Your task to perform on an android device: check android version Image 0: 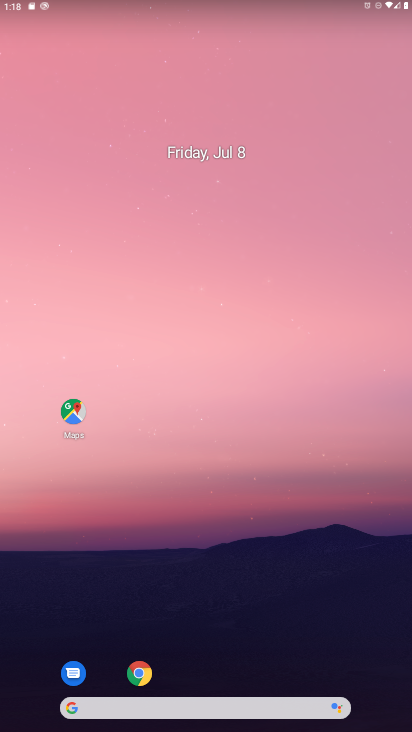
Step 0: drag from (376, 684) to (256, 188)
Your task to perform on an android device: check android version Image 1: 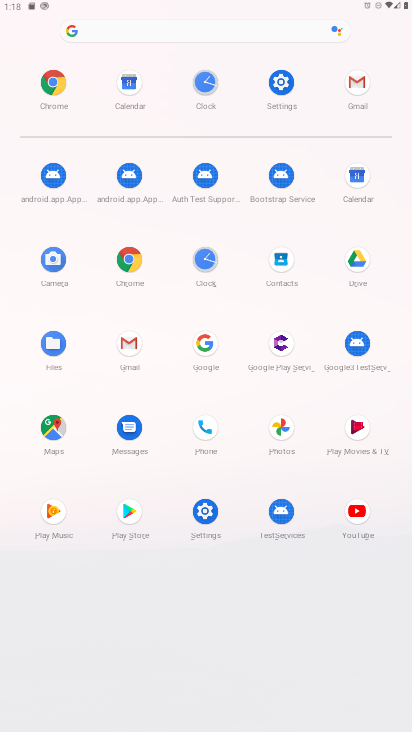
Step 1: click (286, 84)
Your task to perform on an android device: check android version Image 2: 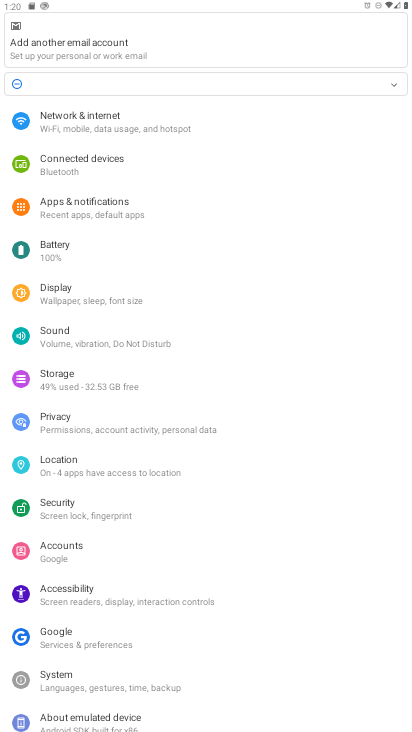
Step 2: click (125, 713)
Your task to perform on an android device: check android version Image 3: 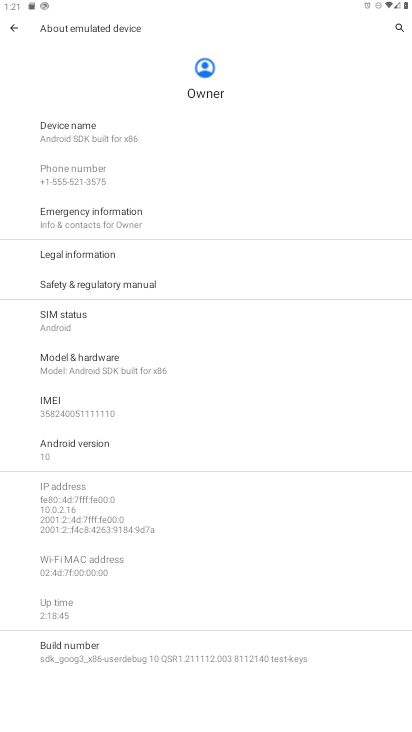
Step 3: task complete